Your task to perform on an android device: Open CNN.com Image 0: 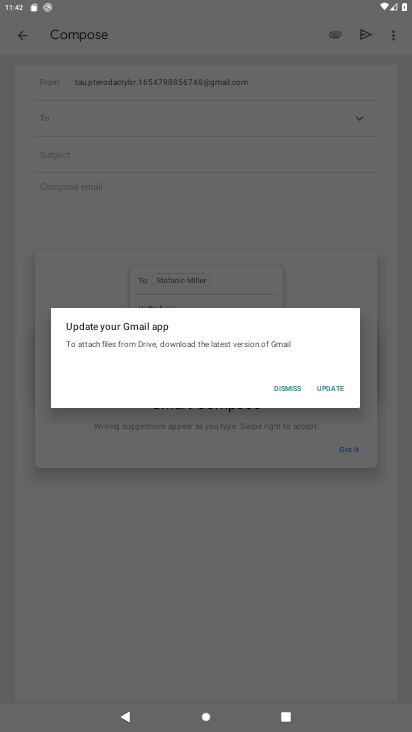
Step 0: press home button
Your task to perform on an android device: Open CNN.com Image 1: 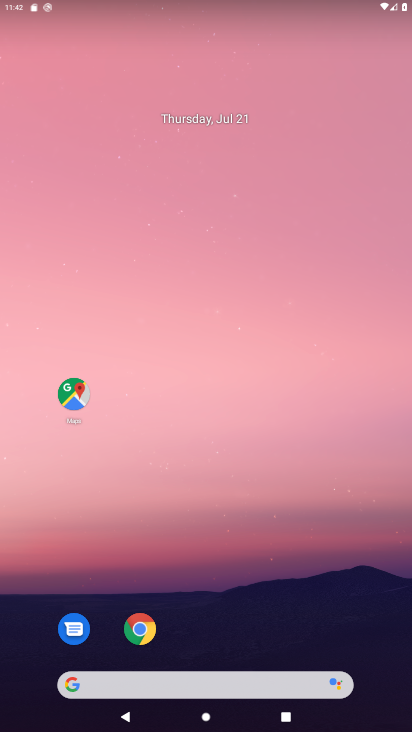
Step 1: click (139, 625)
Your task to perform on an android device: Open CNN.com Image 2: 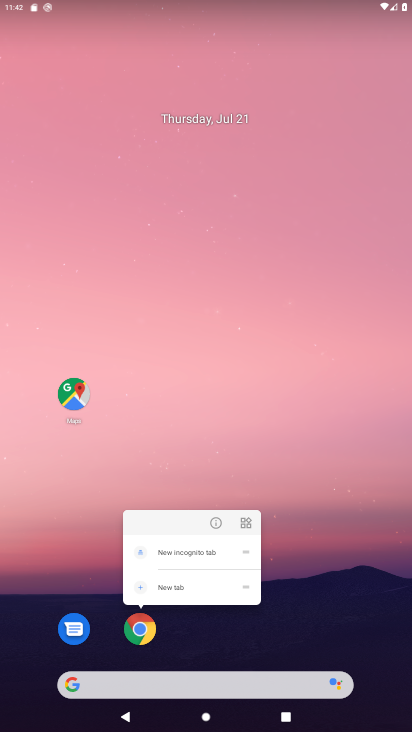
Step 2: click (142, 628)
Your task to perform on an android device: Open CNN.com Image 3: 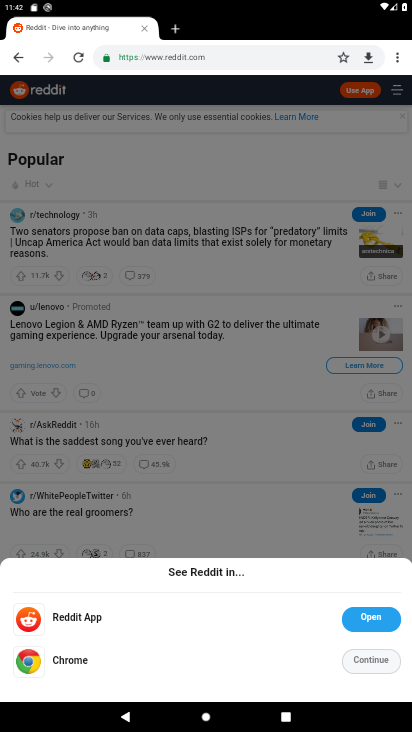
Step 3: click (217, 55)
Your task to perform on an android device: Open CNN.com Image 4: 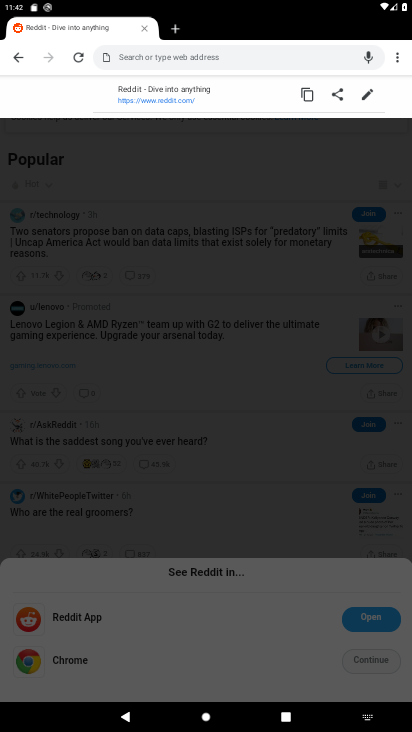
Step 4: type "CNN.com"
Your task to perform on an android device: Open CNN.com Image 5: 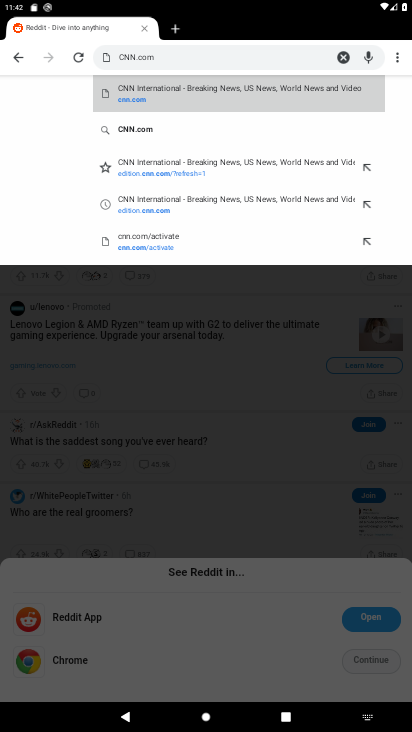
Step 5: click (154, 90)
Your task to perform on an android device: Open CNN.com Image 6: 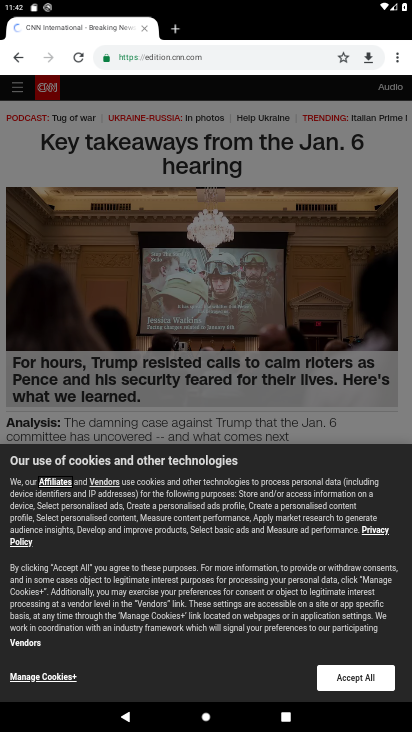
Step 6: task complete